Your task to perform on an android device: turn on the 12-hour format for clock Image 0: 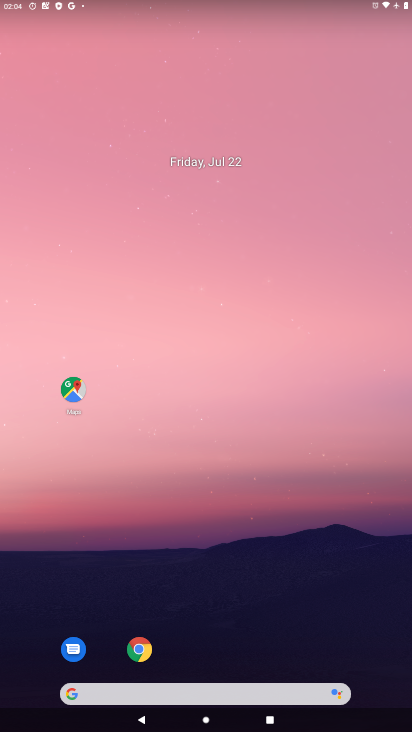
Step 0: drag from (304, 633) to (269, 128)
Your task to perform on an android device: turn on the 12-hour format for clock Image 1: 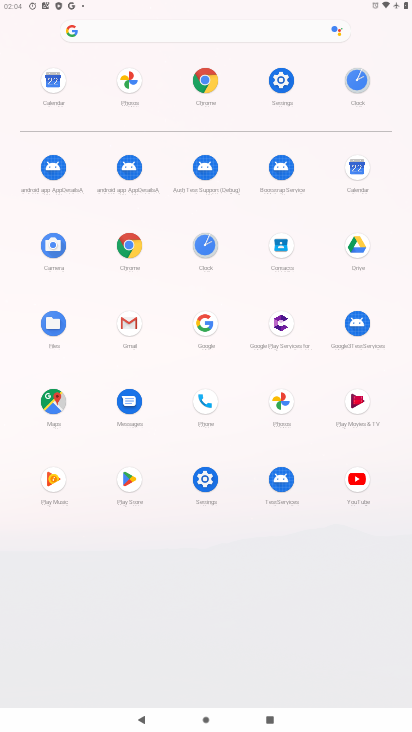
Step 1: click (209, 244)
Your task to perform on an android device: turn on the 12-hour format for clock Image 2: 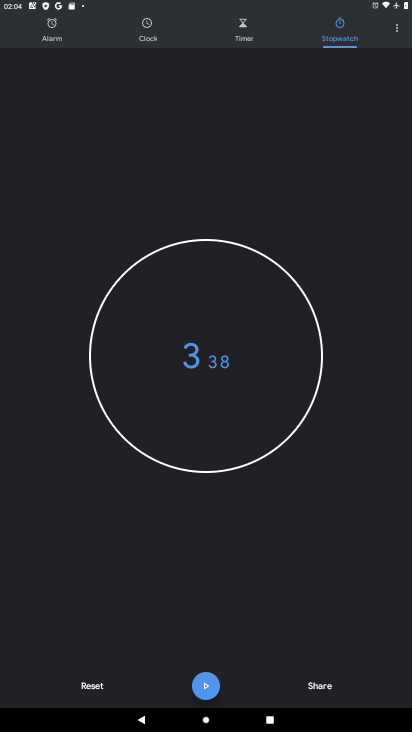
Step 2: click (394, 32)
Your task to perform on an android device: turn on the 12-hour format for clock Image 3: 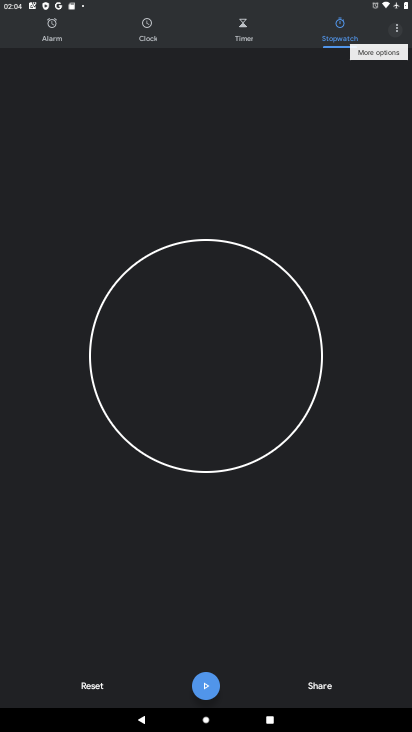
Step 3: click (394, 32)
Your task to perform on an android device: turn on the 12-hour format for clock Image 4: 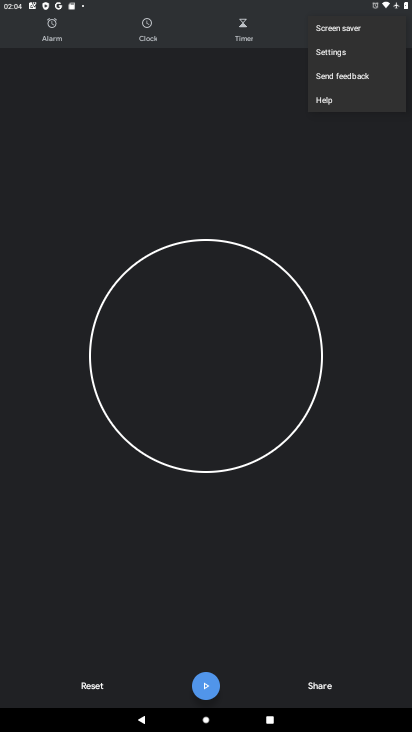
Step 4: click (347, 52)
Your task to perform on an android device: turn on the 12-hour format for clock Image 5: 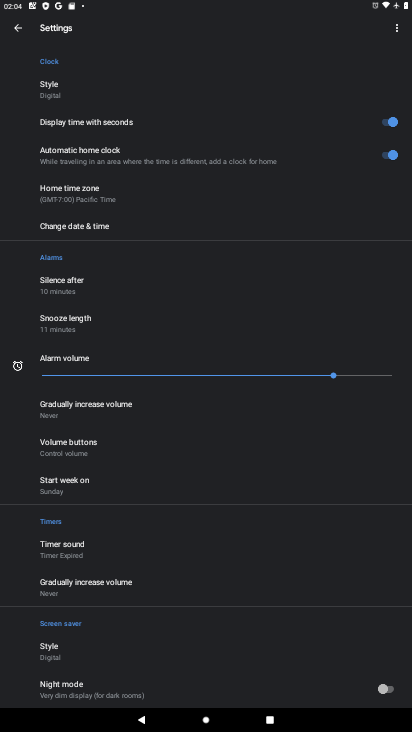
Step 5: click (107, 232)
Your task to perform on an android device: turn on the 12-hour format for clock Image 6: 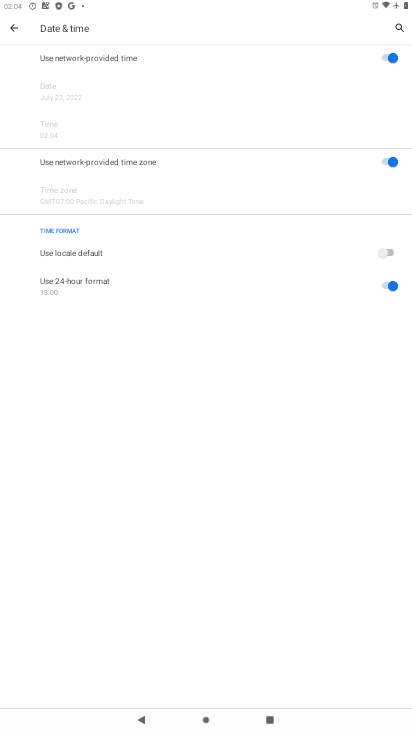
Step 6: click (381, 253)
Your task to perform on an android device: turn on the 12-hour format for clock Image 7: 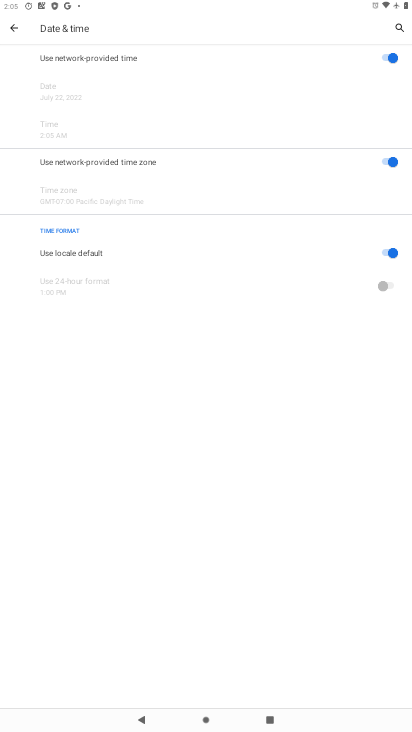
Step 7: task complete